Your task to perform on an android device: change alarm snooze length Image 0: 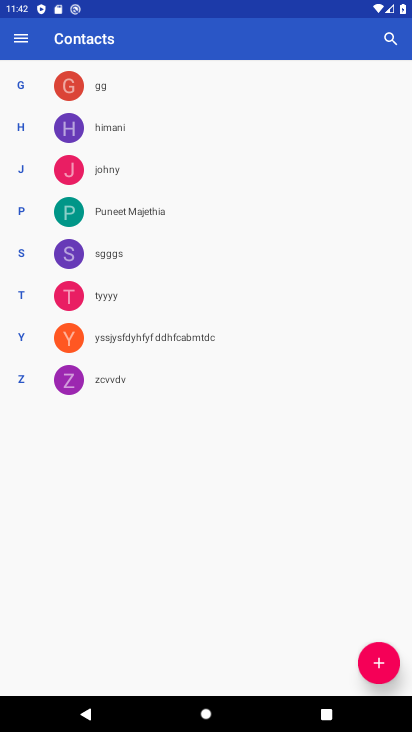
Step 0: press home button
Your task to perform on an android device: change alarm snooze length Image 1: 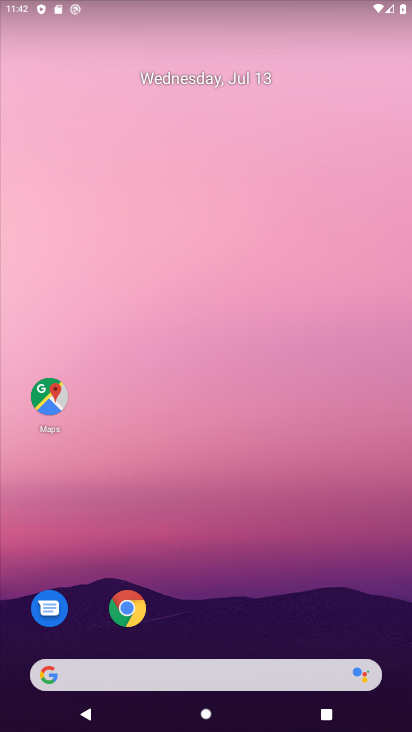
Step 1: drag from (19, 713) to (229, 136)
Your task to perform on an android device: change alarm snooze length Image 2: 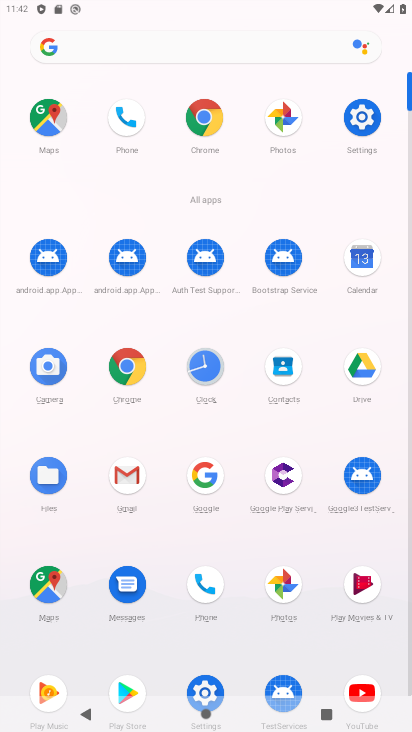
Step 2: click (203, 380)
Your task to perform on an android device: change alarm snooze length Image 3: 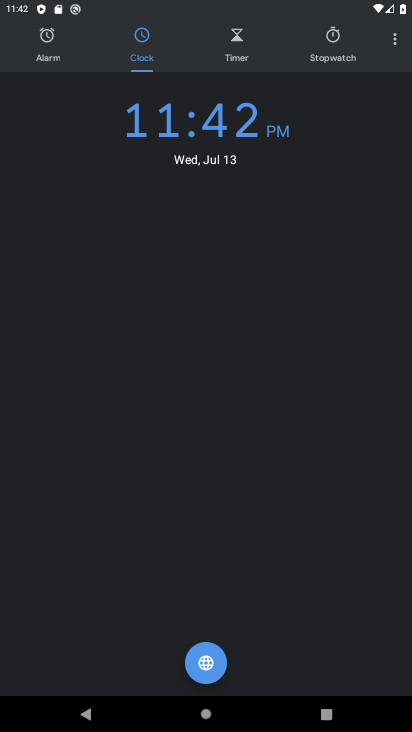
Step 3: click (398, 45)
Your task to perform on an android device: change alarm snooze length Image 4: 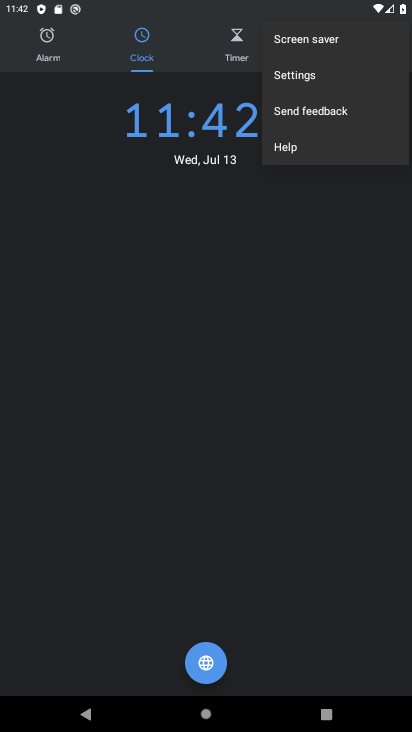
Step 4: click (299, 77)
Your task to perform on an android device: change alarm snooze length Image 5: 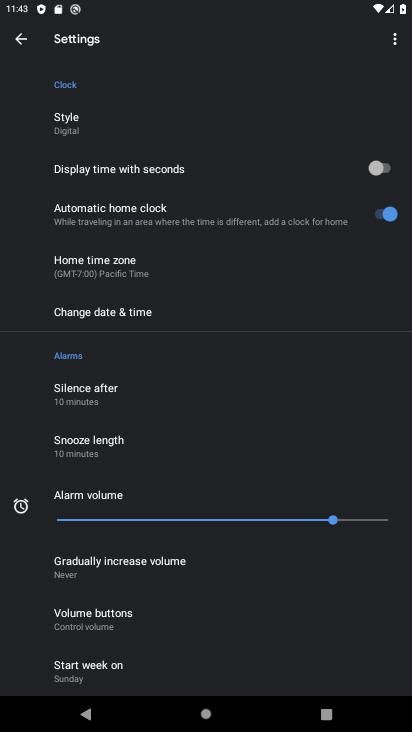
Step 5: click (118, 444)
Your task to perform on an android device: change alarm snooze length Image 6: 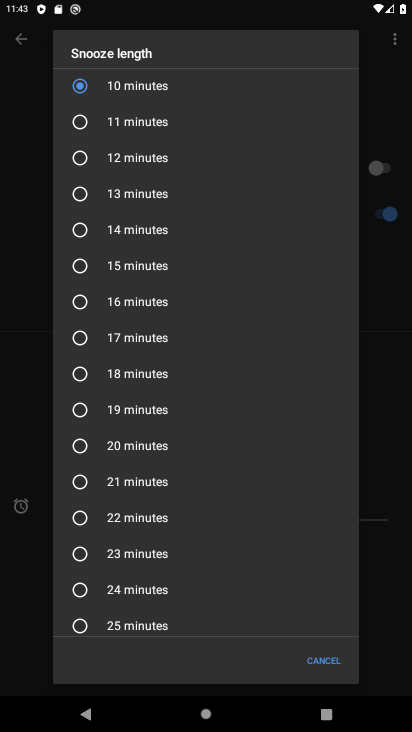
Step 6: click (157, 137)
Your task to perform on an android device: change alarm snooze length Image 7: 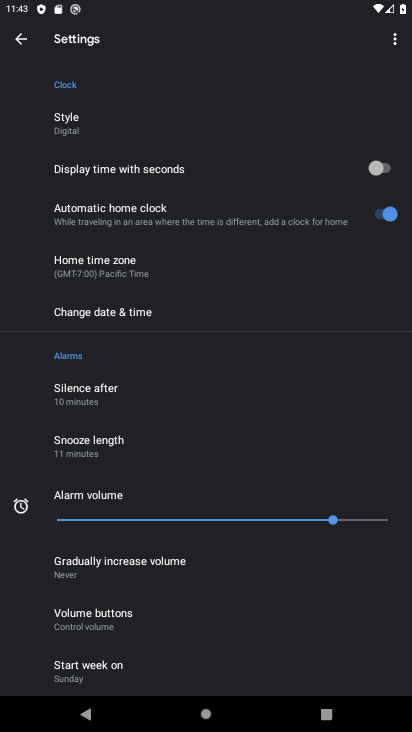
Step 7: task complete